Your task to perform on an android device: turn off picture-in-picture Image 0: 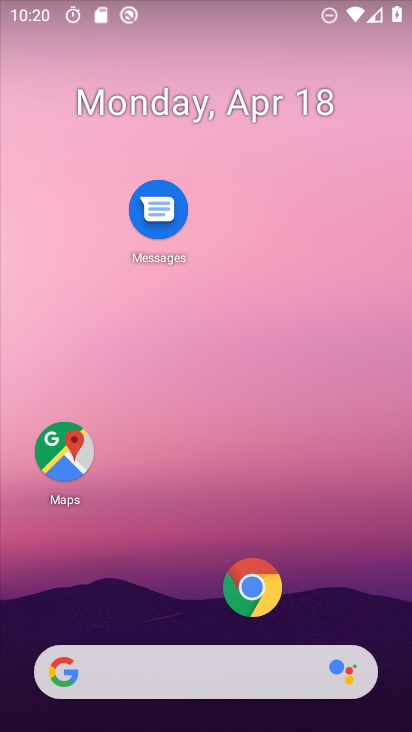
Step 0: click (245, 565)
Your task to perform on an android device: turn off picture-in-picture Image 1: 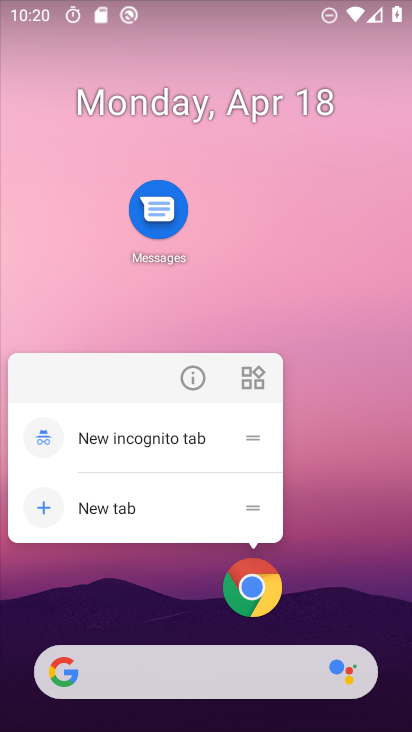
Step 1: click (188, 375)
Your task to perform on an android device: turn off picture-in-picture Image 2: 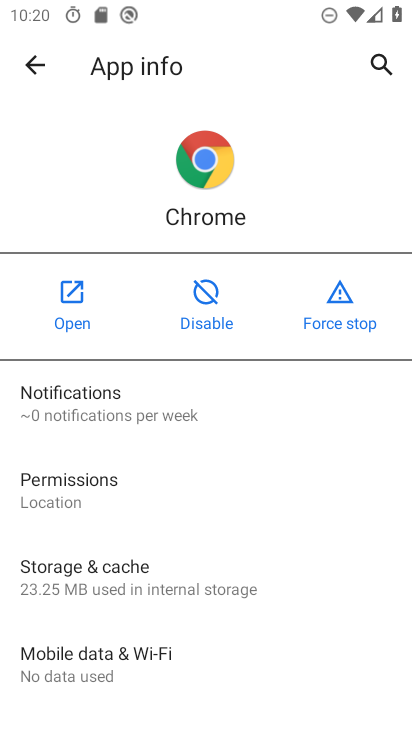
Step 2: drag from (138, 594) to (271, 82)
Your task to perform on an android device: turn off picture-in-picture Image 3: 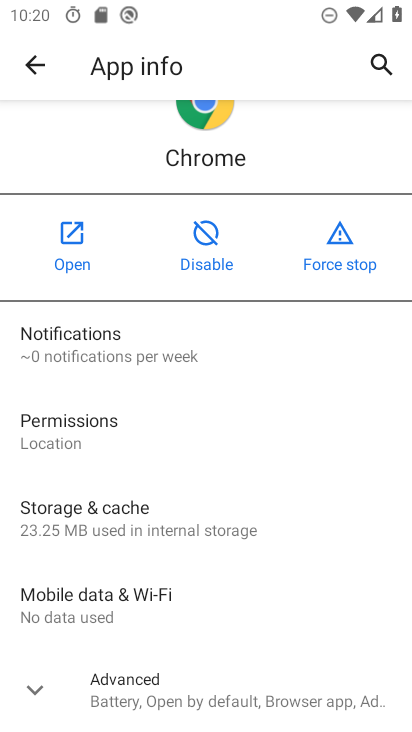
Step 3: click (125, 684)
Your task to perform on an android device: turn off picture-in-picture Image 4: 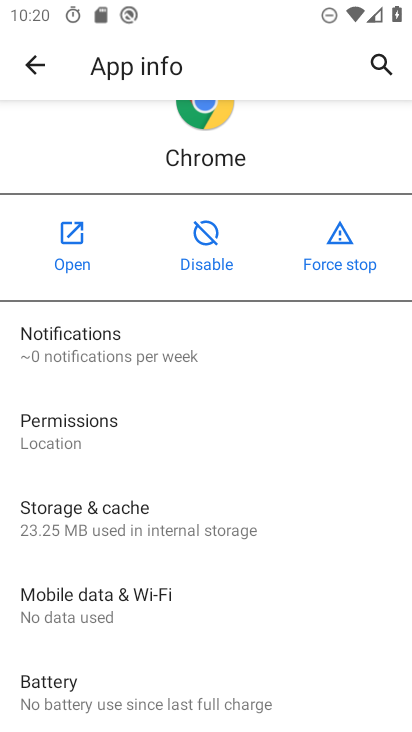
Step 4: drag from (106, 682) to (145, 367)
Your task to perform on an android device: turn off picture-in-picture Image 5: 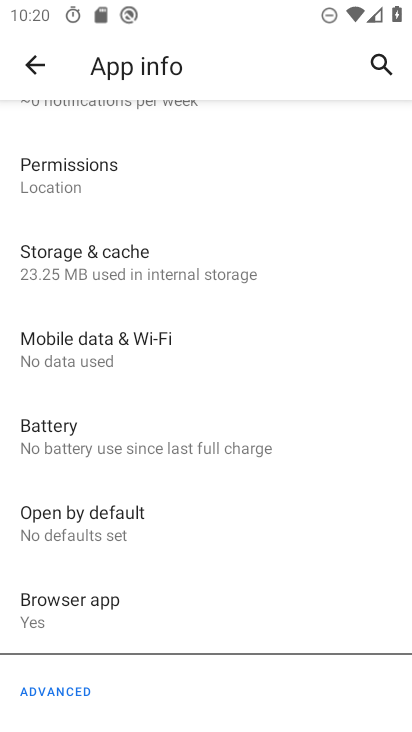
Step 5: drag from (148, 588) to (217, 222)
Your task to perform on an android device: turn off picture-in-picture Image 6: 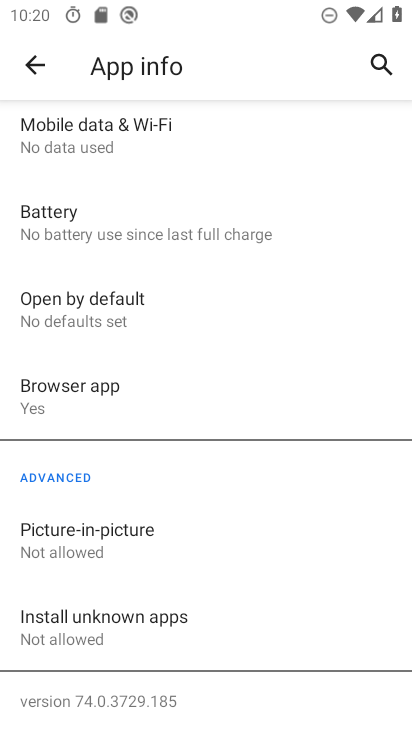
Step 6: click (96, 536)
Your task to perform on an android device: turn off picture-in-picture Image 7: 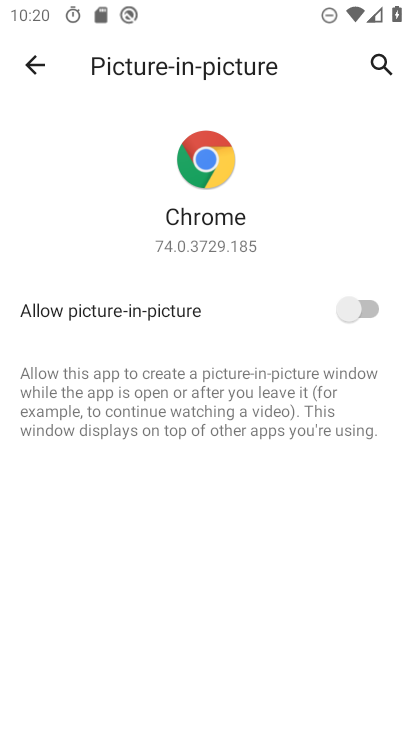
Step 7: task complete